Your task to perform on an android device: Open Google Chrome and open the bookmarks view Image 0: 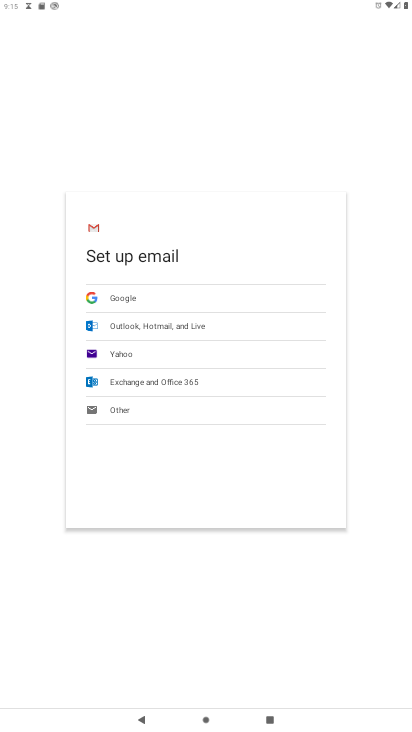
Step 0: press home button
Your task to perform on an android device: Open Google Chrome and open the bookmarks view Image 1: 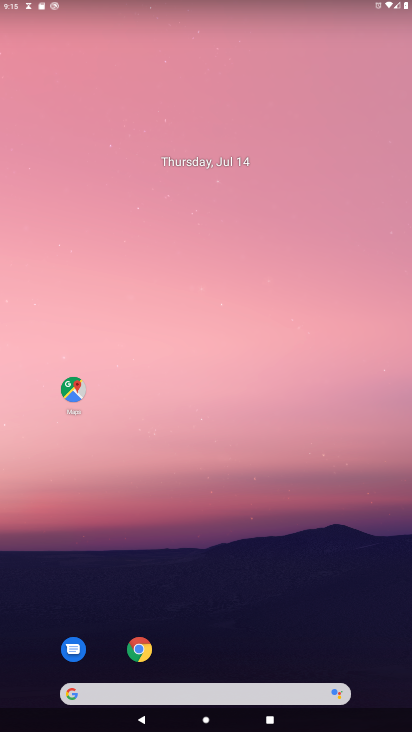
Step 1: click (140, 662)
Your task to perform on an android device: Open Google Chrome and open the bookmarks view Image 2: 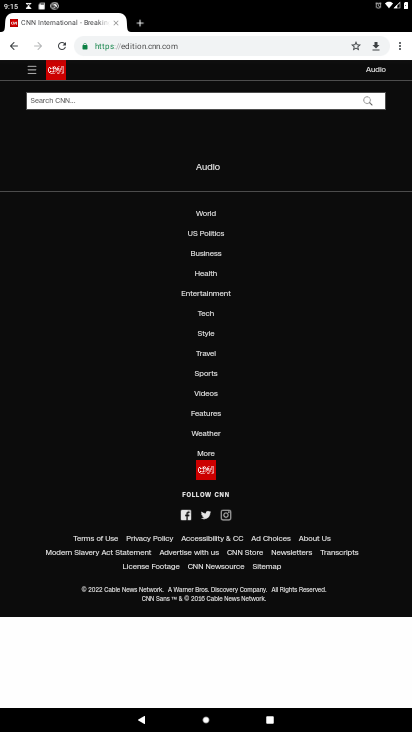
Step 2: click (396, 44)
Your task to perform on an android device: Open Google Chrome and open the bookmarks view Image 3: 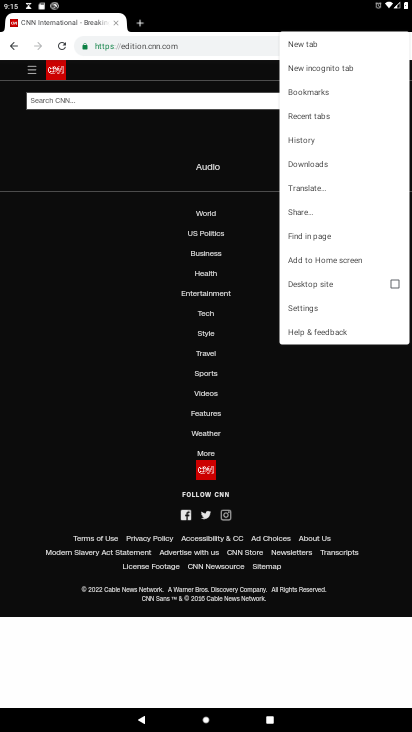
Step 3: click (310, 95)
Your task to perform on an android device: Open Google Chrome and open the bookmarks view Image 4: 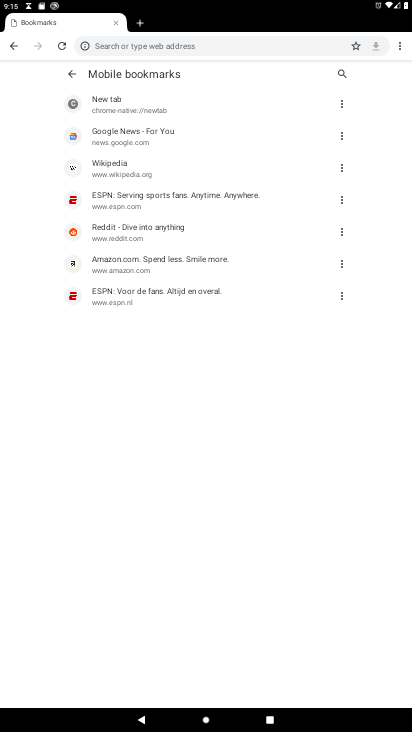
Step 4: task complete